Your task to perform on an android device: Open Chrome and go to settings Image 0: 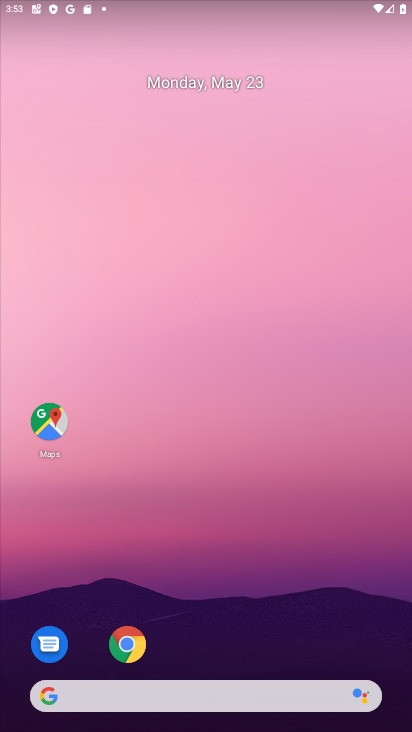
Step 0: click (136, 654)
Your task to perform on an android device: Open Chrome and go to settings Image 1: 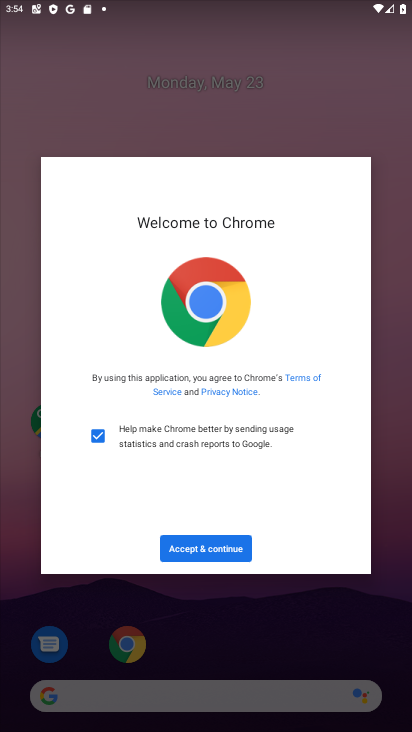
Step 1: click (181, 553)
Your task to perform on an android device: Open Chrome and go to settings Image 2: 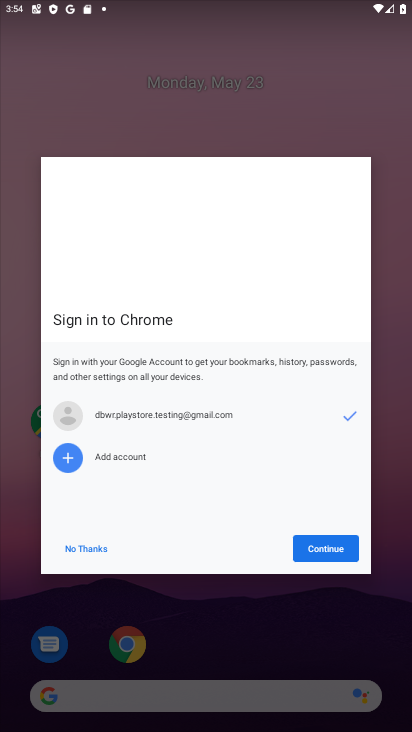
Step 2: click (343, 544)
Your task to perform on an android device: Open Chrome and go to settings Image 3: 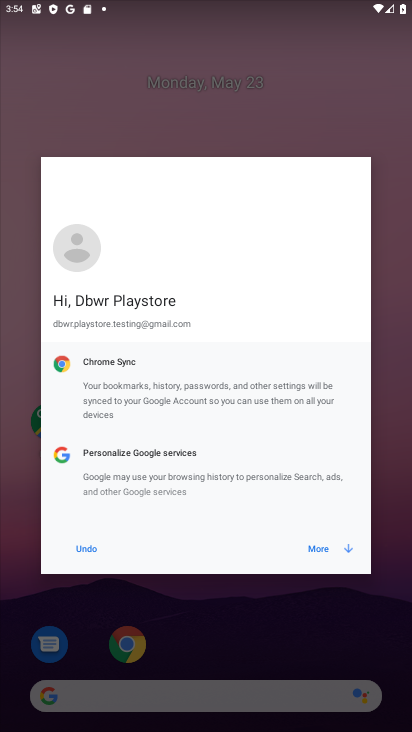
Step 3: click (343, 544)
Your task to perform on an android device: Open Chrome and go to settings Image 4: 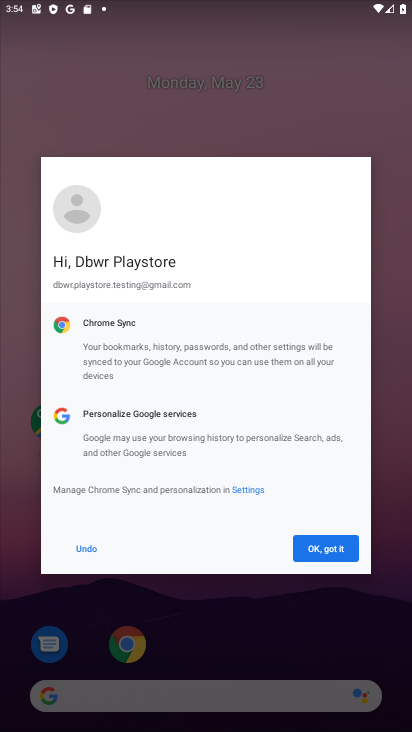
Step 4: click (343, 544)
Your task to perform on an android device: Open Chrome and go to settings Image 5: 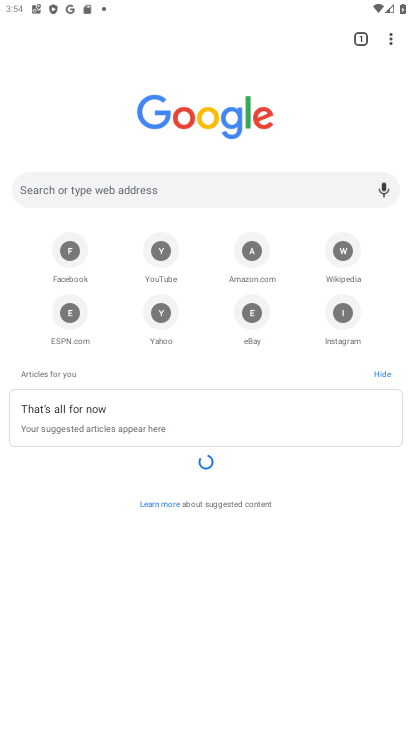
Step 5: click (393, 41)
Your task to perform on an android device: Open Chrome and go to settings Image 6: 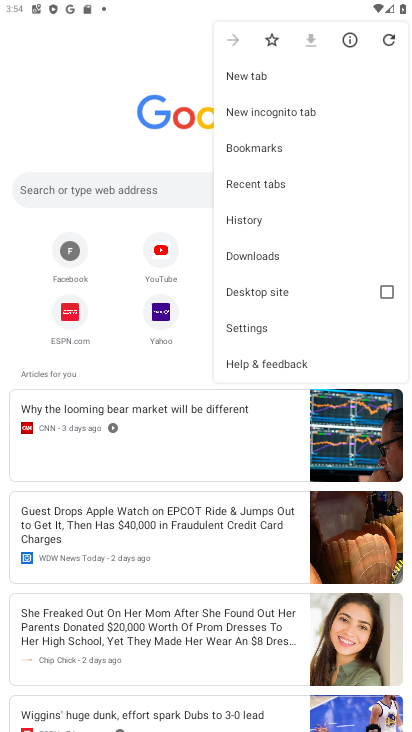
Step 6: click (250, 324)
Your task to perform on an android device: Open Chrome and go to settings Image 7: 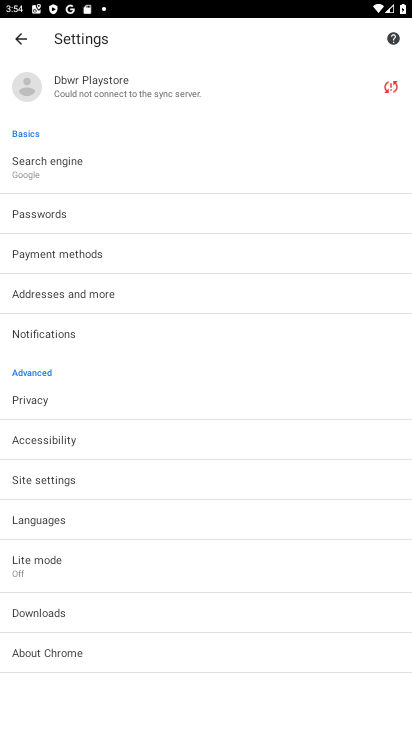
Step 7: task complete